Your task to perform on an android device: Go to display settings Image 0: 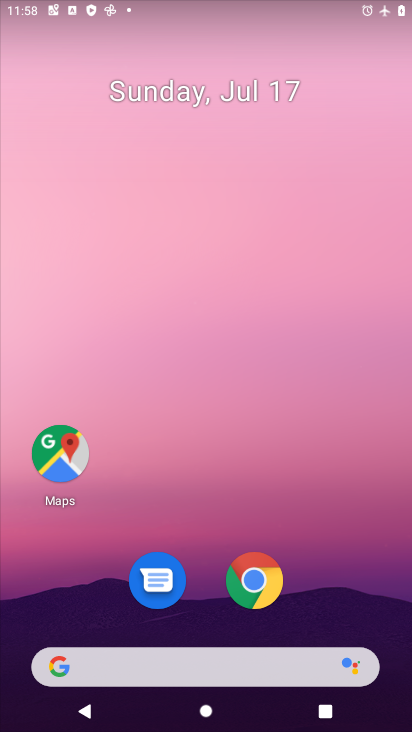
Step 0: drag from (241, 533) to (288, 132)
Your task to perform on an android device: Go to display settings Image 1: 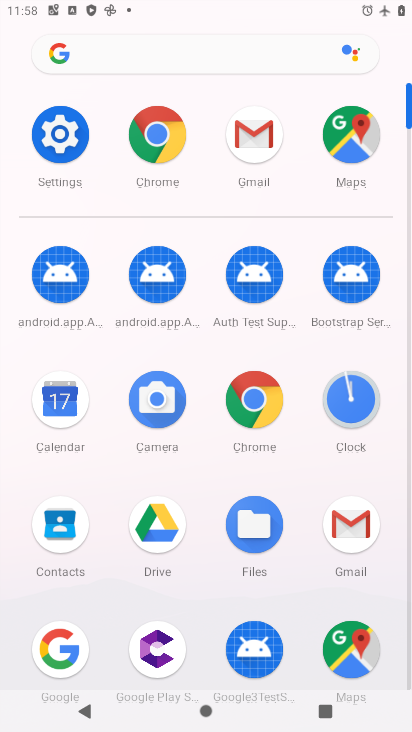
Step 1: click (60, 149)
Your task to perform on an android device: Go to display settings Image 2: 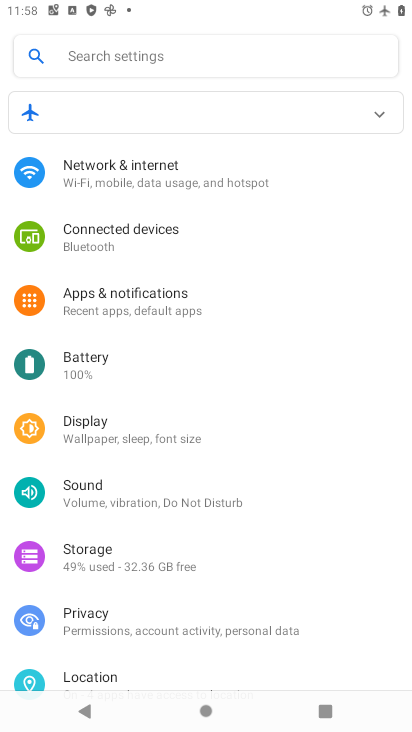
Step 2: click (136, 440)
Your task to perform on an android device: Go to display settings Image 3: 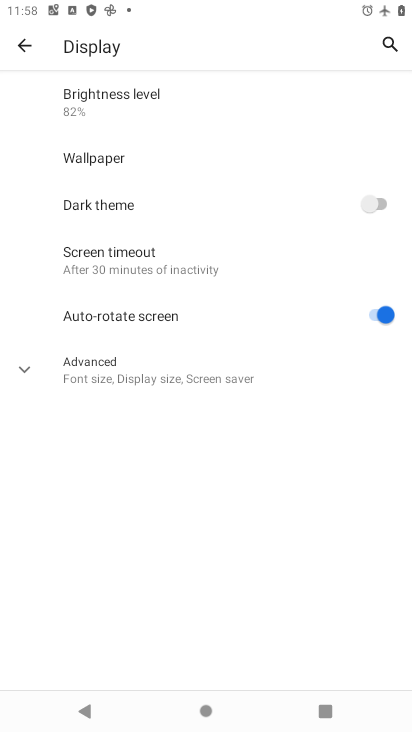
Step 3: task complete